Your task to perform on an android device: Search for pizza restaurants on Maps Image 0: 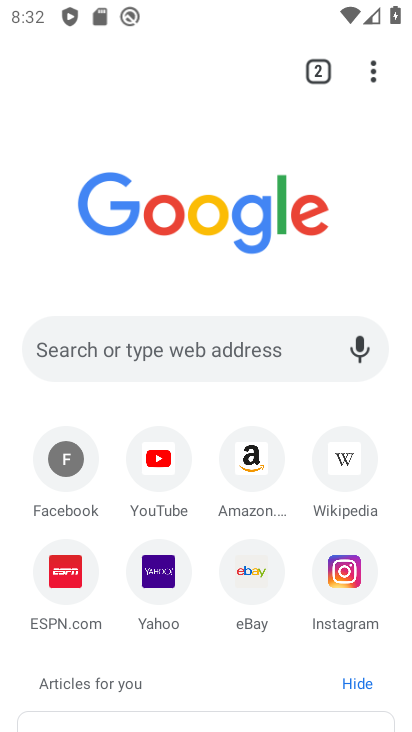
Step 0: press home button
Your task to perform on an android device: Search for pizza restaurants on Maps Image 1: 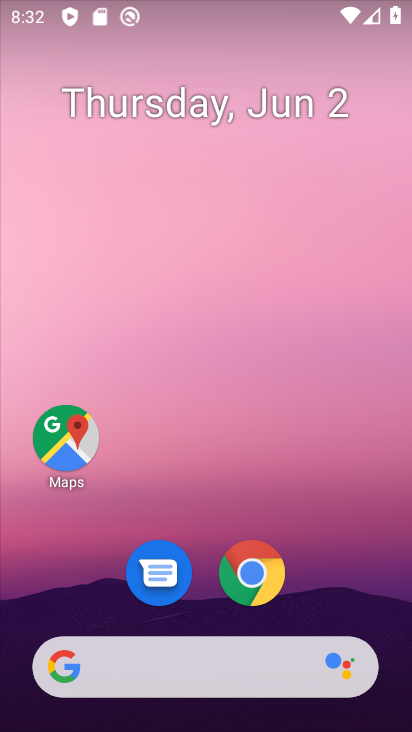
Step 1: click (66, 424)
Your task to perform on an android device: Search for pizza restaurants on Maps Image 2: 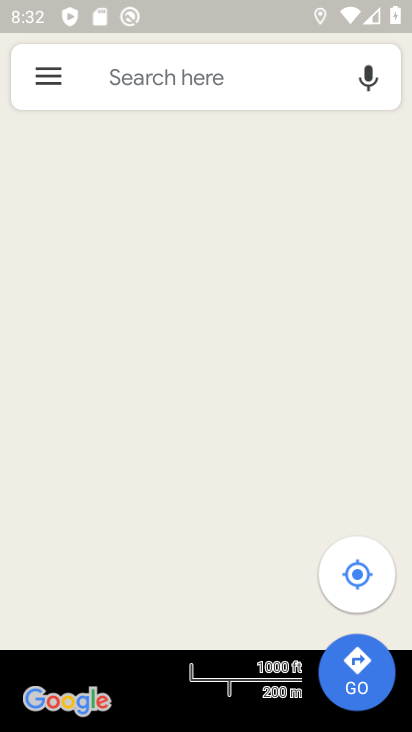
Step 2: click (135, 70)
Your task to perform on an android device: Search for pizza restaurants on Maps Image 3: 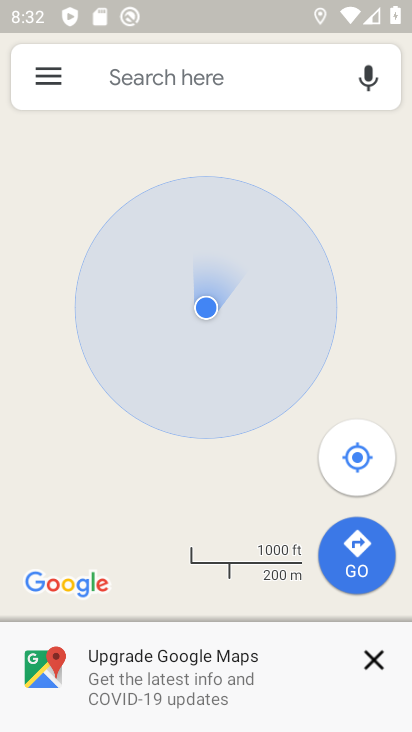
Step 3: click (135, 70)
Your task to perform on an android device: Search for pizza restaurants on Maps Image 4: 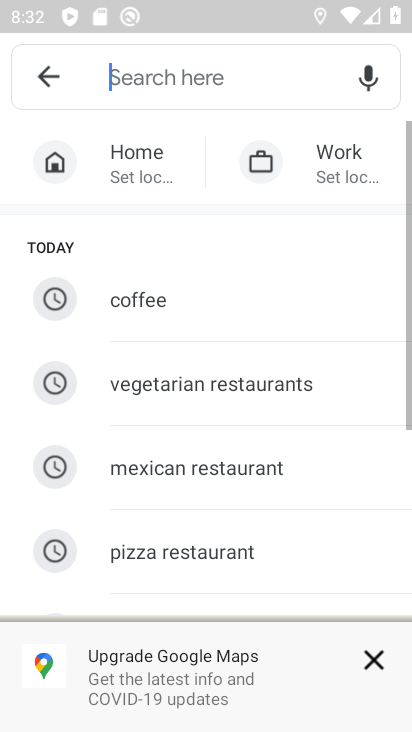
Step 4: click (163, 84)
Your task to perform on an android device: Search for pizza restaurants on Maps Image 5: 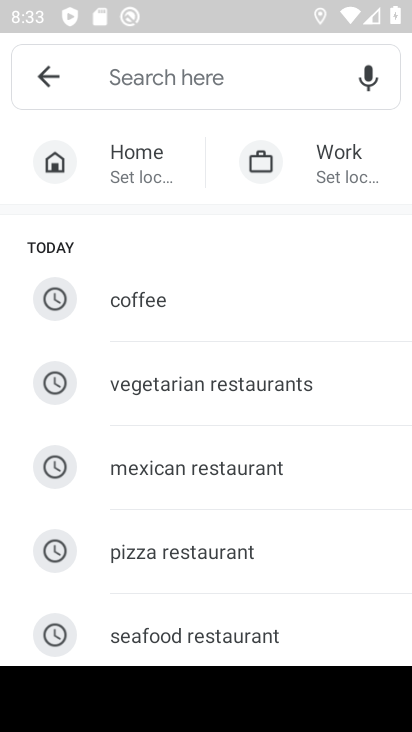
Step 5: type "pizza restaurants "
Your task to perform on an android device: Search for pizza restaurants on Maps Image 6: 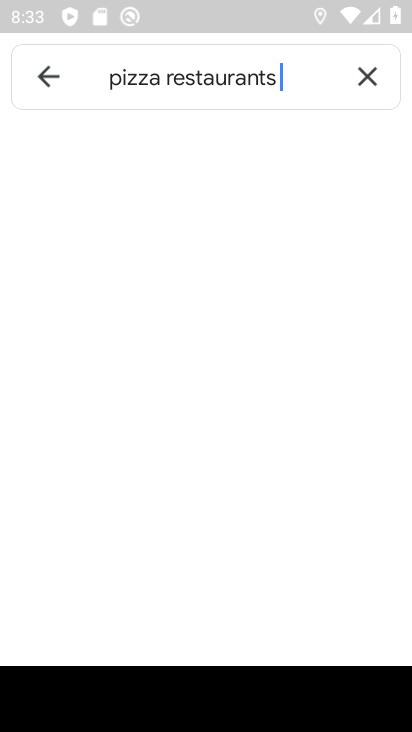
Step 6: type ""
Your task to perform on an android device: Search for pizza restaurants on Maps Image 7: 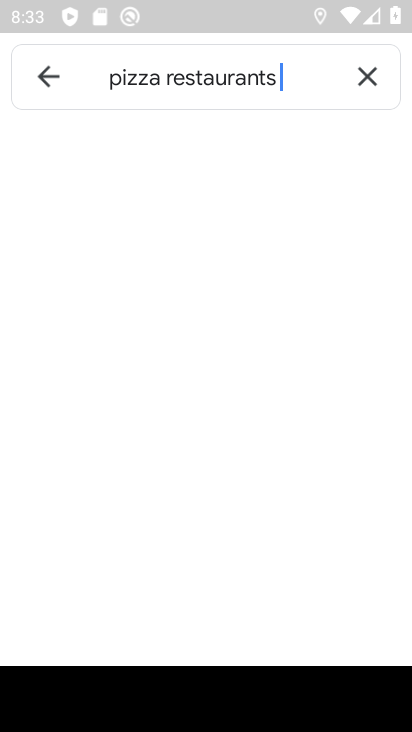
Step 7: click (131, 159)
Your task to perform on an android device: Search for pizza restaurants on Maps Image 8: 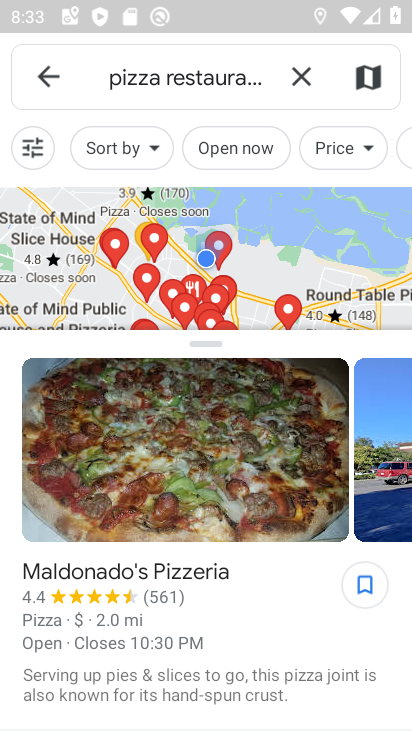
Step 8: task complete